Your task to perform on an android device: What's the weather going to be this weekend? Image 0: 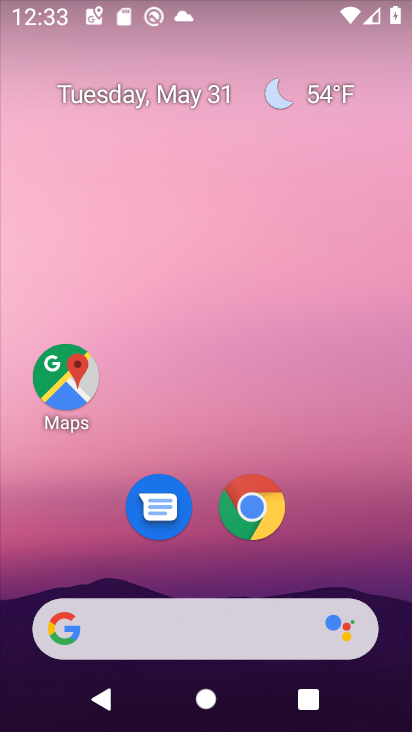
Step 0: drag from (206, 374) to (394, 520)
Your task to perform on an android device: What's the weather going to be this weekend? Image 1: 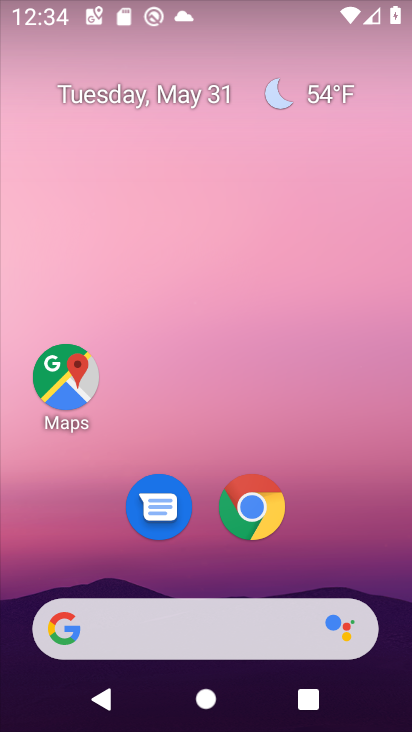
Step 1: drag from (57, 330) to (319, 553)
Your task to perform on an android device: What's the weather going to be this weekend? Image 2: 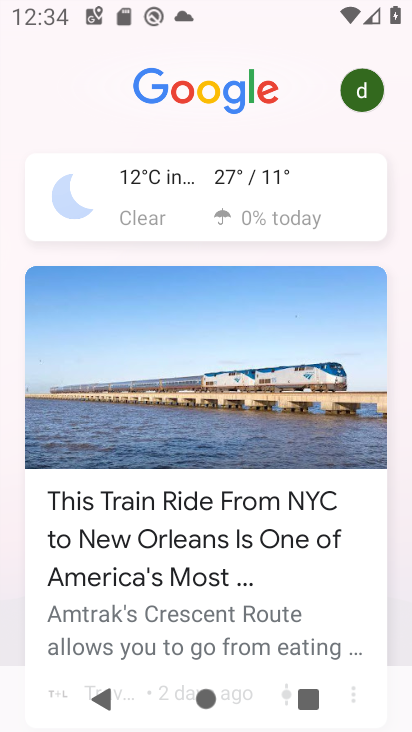
Step 2: click (173, 213)
Your task to perform on an android device: What's the weather going to be this weekend? Image 3: 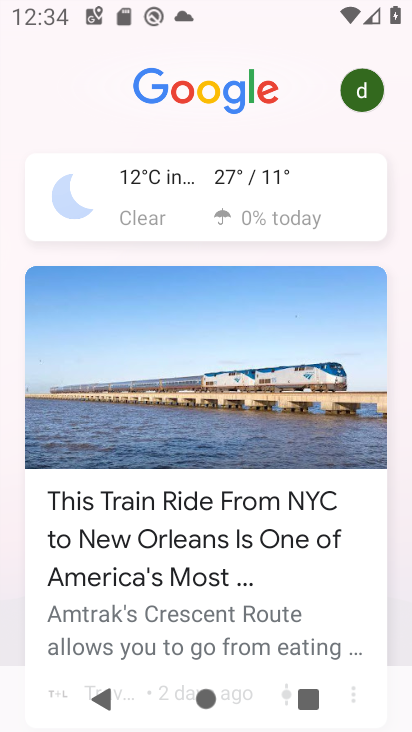
Step 3: click (179, 212)
Your task to perform on an android device: What's the weather going to be this weekend? Image 4: 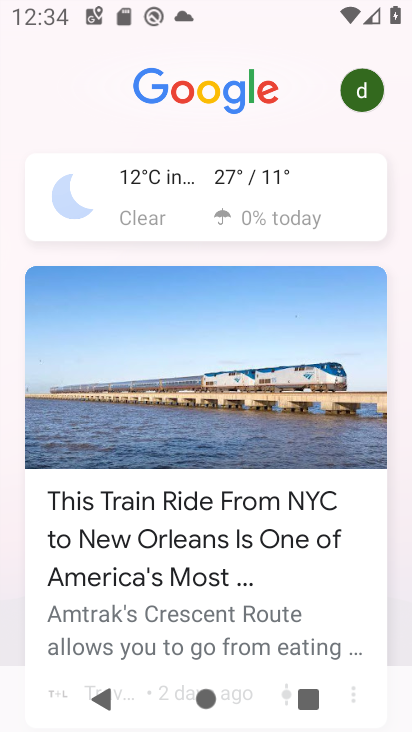
Step 4: click (179, 204)
Your task to perform on an android device: What's the weather going to be this weekend? Image 5: 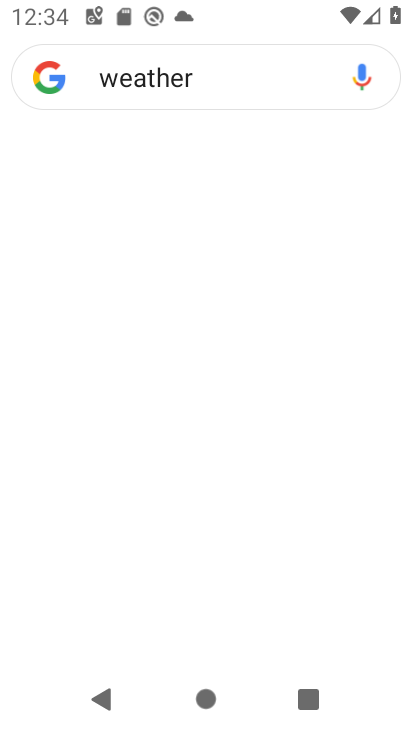
Step 5: click (184, 202)
Your task to perform on an android device: What's the weather going to be this weekend? Image 6: 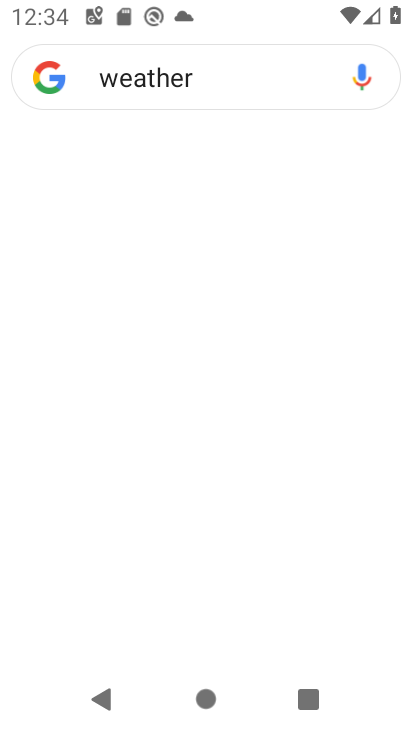
Step 6: click (183, 201)
Your task to perform on an android device: What's the weather going to be this weekend? Image 7: 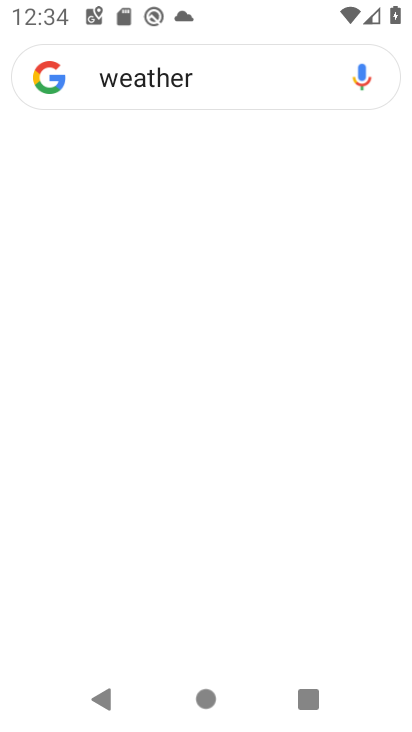
Step 7: click (179, 191)
Your task to perform on an android device: What's the weather going to be this weekend? Image 8: 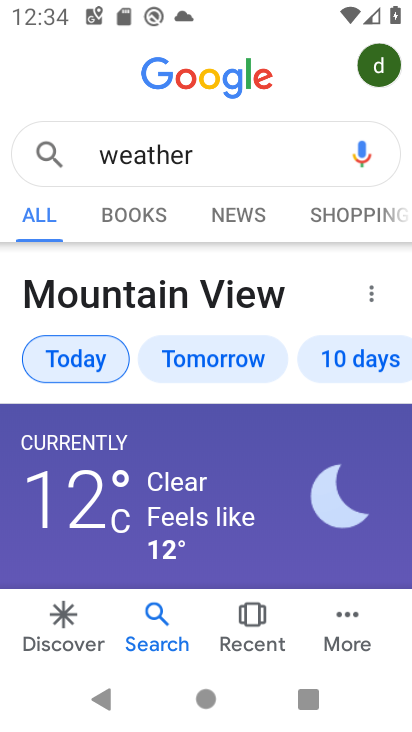
Step 8: click (348, 345)
Your task to perform on an android device: What's the weather going to be this weekend? Image 9: 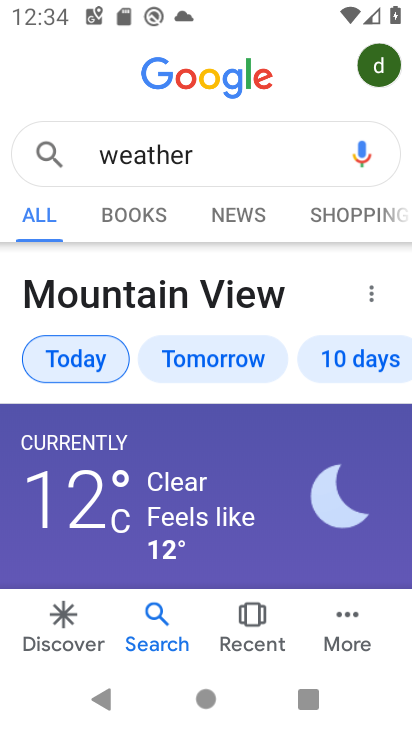
Step 9: click (356, 366)
Your task to perform on an android device: What's the weather going to be this weekend? Image 10: 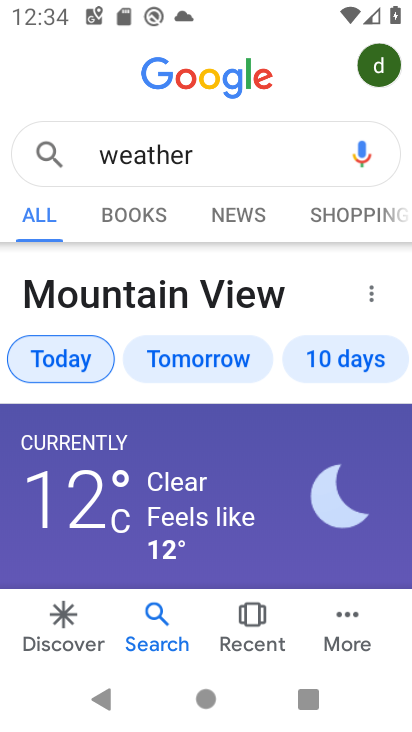
Step 10: drag from (214, 486) to (212, 266)
Your task to perform on an android device: What's the weather going to be this weekend? Image 11: 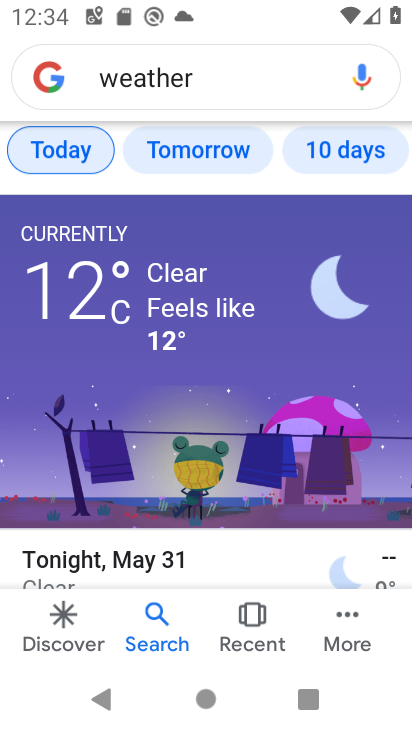
Step 11: drag from (271, 462) to (299, 122)
Your task to perform on an android device: What's the weather going to be this weekend? Image 12: 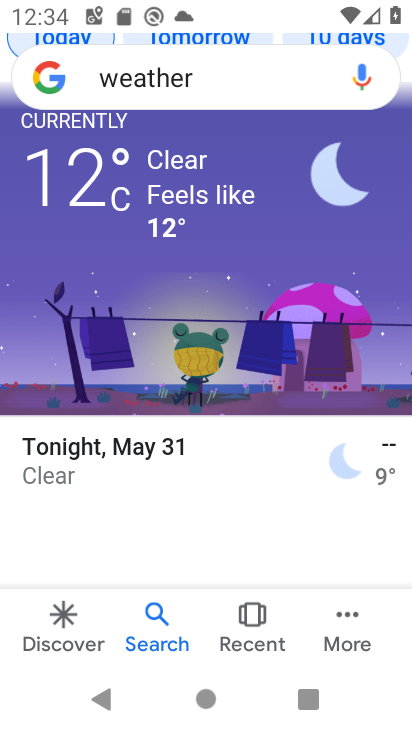
Step 12: drag from (230, 454) to (276, 52)
Your task to perform on an android device: What's the weather going to be this weekend? Image 13: 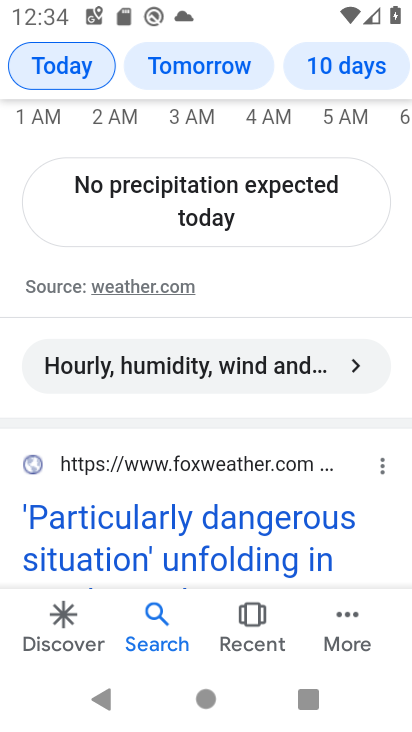
Step 13: drag from (277, 462) to (294, 31)
Your task to perform on an android device: What's the weather going to be this weekend? Image 14: 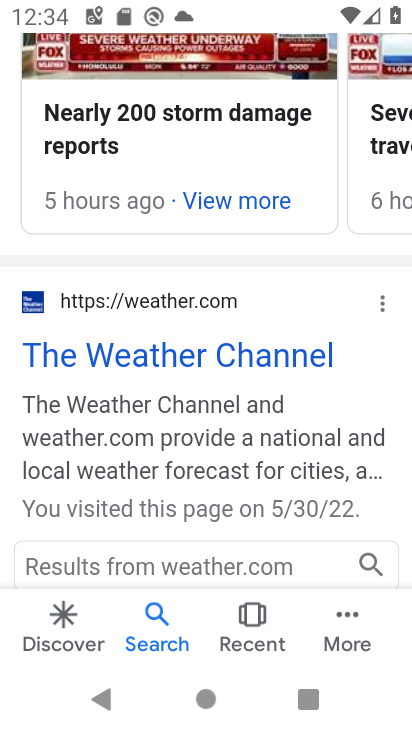
Step 14: click (264, 124)
Your task to perform on an android device: What's the weather going to be this weekend? Image 15: 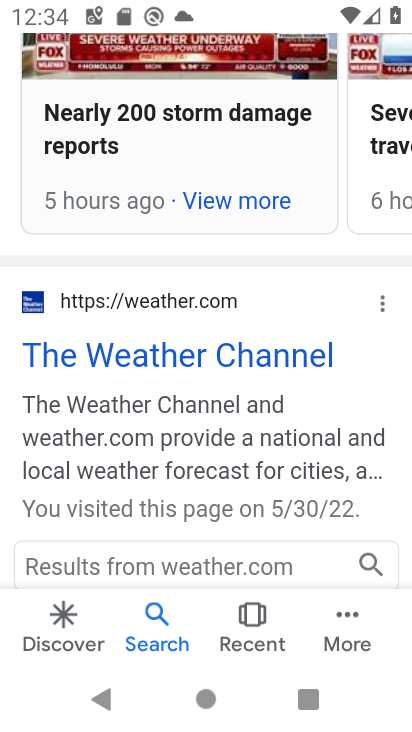
Step 15: drag from (245, 162) to (225, 605)
Your task to perform on an android device: What's the weather going to be this weekend? Image 16: 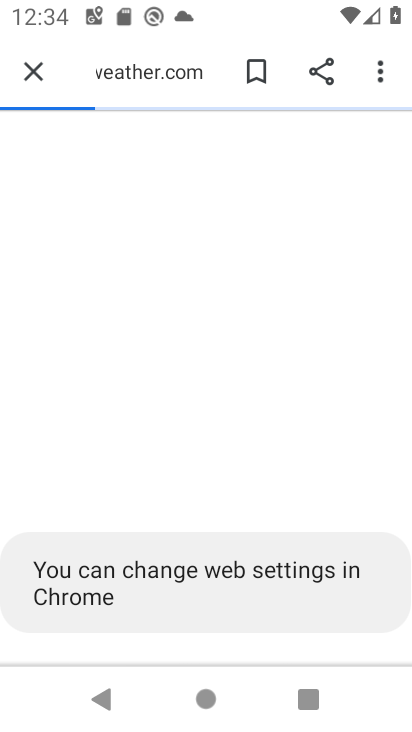
Step 16: drag from (196, 185) to (271, 551)
Your task to perform on an android device: What's the weather going to be this weekend? Image 17: 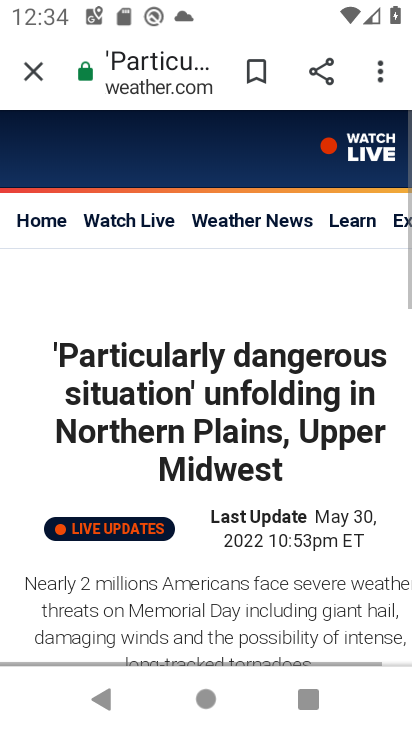
Step 17: click (34, 73)
Your task to perform on an android device: What's the weather going to be this weekend? Image 18: 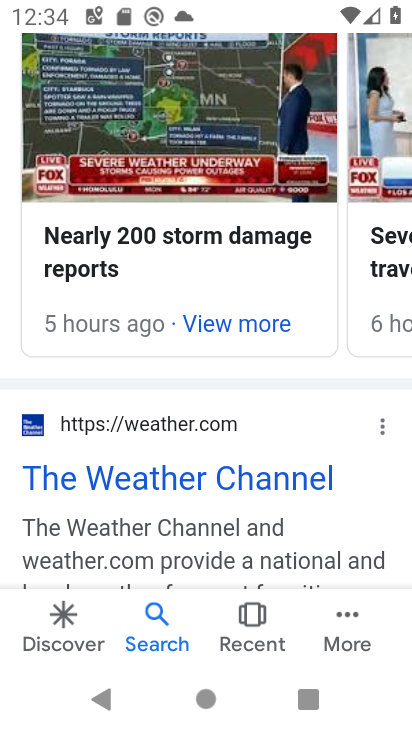
Step 18: drag from (225, 208) to (191, 604)
Your task to perform on an android device: What's the weather going to be this weekend? Image 19: 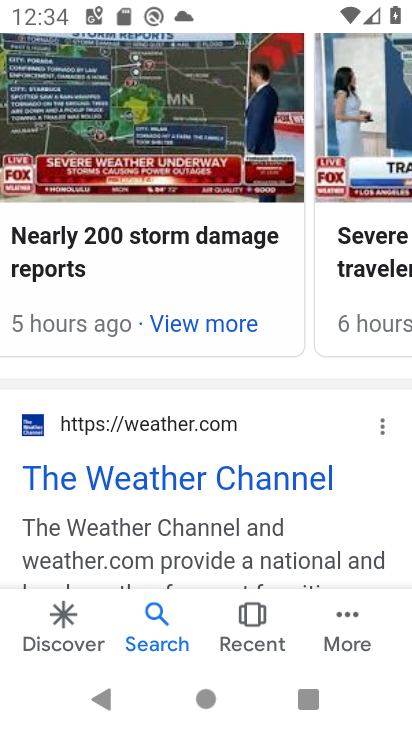
Step 19: drag from (165, 252) to (181, 451)
Your task to perform on an android device: What's the weather going to be this weekend? Image 20: 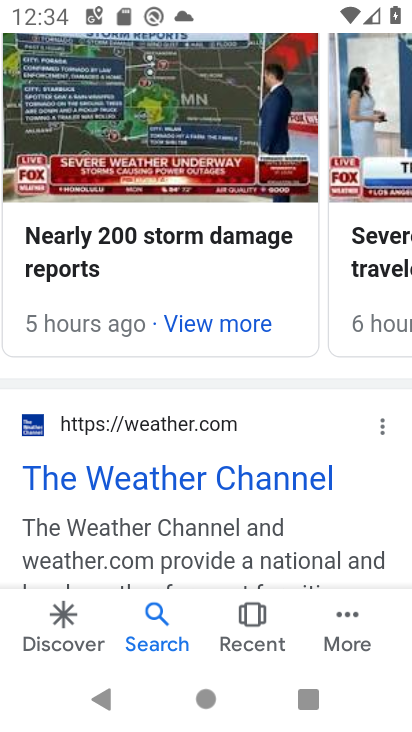
Step 20: drag from (167, 202) to (158, 350)
Your task to perform on an android device: What's the weather going to be this weekend? Image 21: 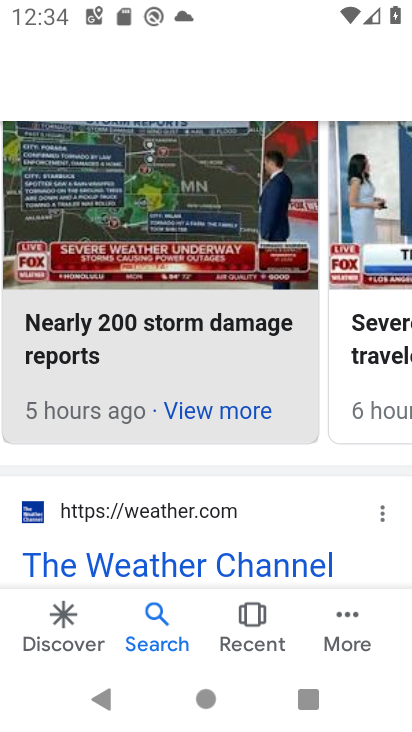
Step 21: drag from (143, 244) to (142, 430)
Your task to perform on an android device: What's the weather going to be this weekend? Image 22: 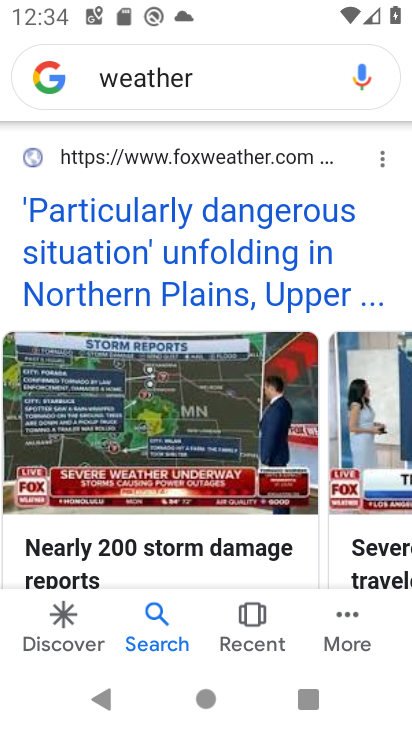
Step 22: drag from (150, 229) to (158, 443)
Your task to perform on an android device: What's the weather going to be this weekend? Image 23: 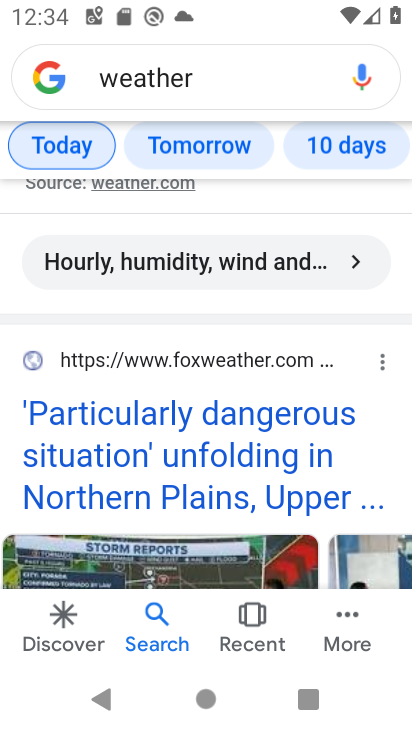
Step 23: drag from (196, 442) to (190, 513)
Your task to perform on an android device: What's the weather going to be this weekend? Image 24: 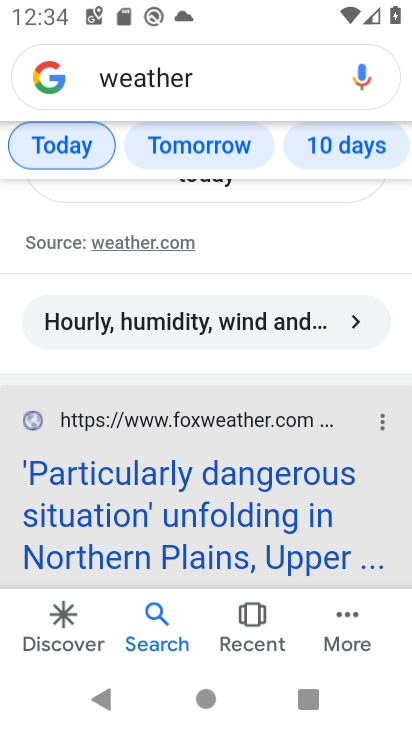
Step 24: drag from (191, 226) to (200, 500)
Your task to perform on an android device: What's the weather going to be this weekend? Image 25: 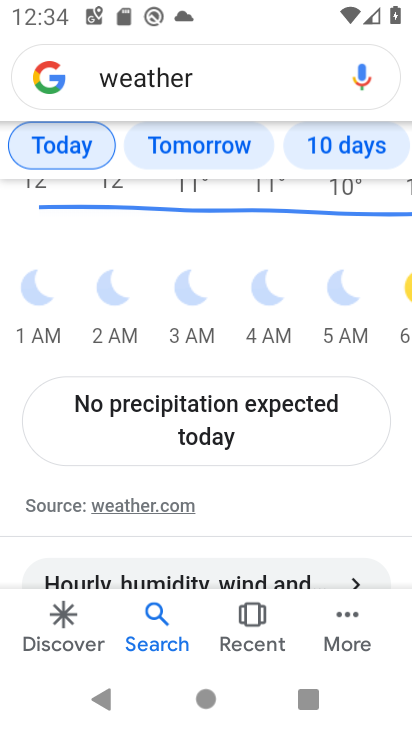
Step 25: drag from (332, 324) to (104, 360)
Your task to perform on an android device: What's the weather going to be this weekend? Image 26: 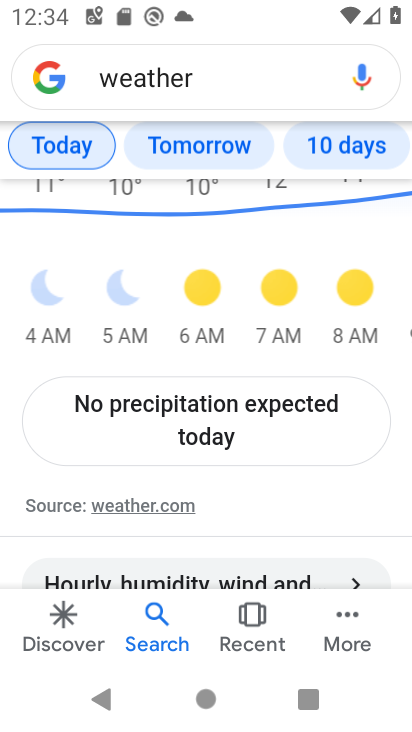
Step 26: drag from (226, 276) to (109, 262)
Your task to perform on an android device: What's the weather going to be this weekend? Image 27: 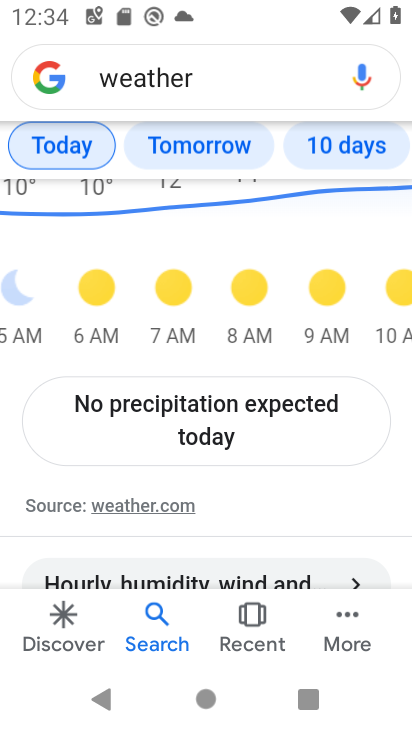
Step 27: drag from (314, 208) to (259, 424)
Your task to perform on an android device: What's the weather going to be this weekend? Image 28: 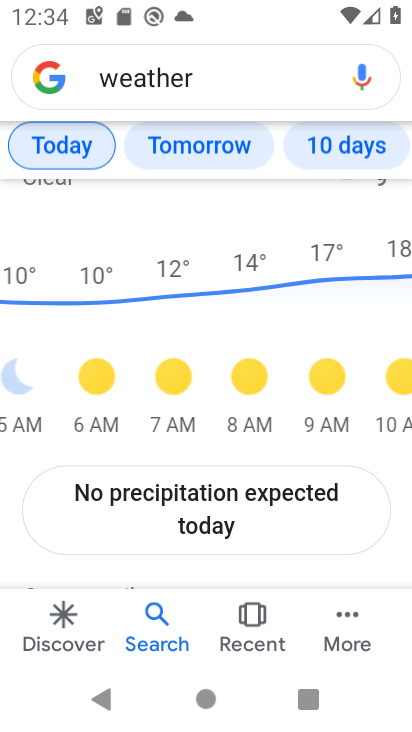
Step 28: click (236, 379)
Your task to perform on an android device: What's the weather going to be this weekend? Image 29: 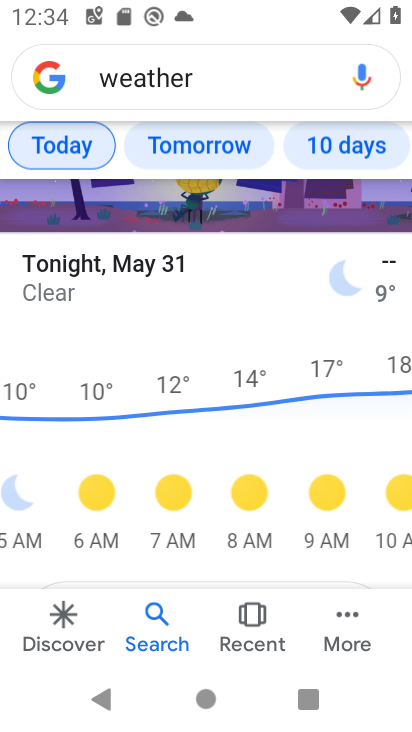
Step 29: task complete